Your task to perform on an android device: turn notification dots on Image 0: 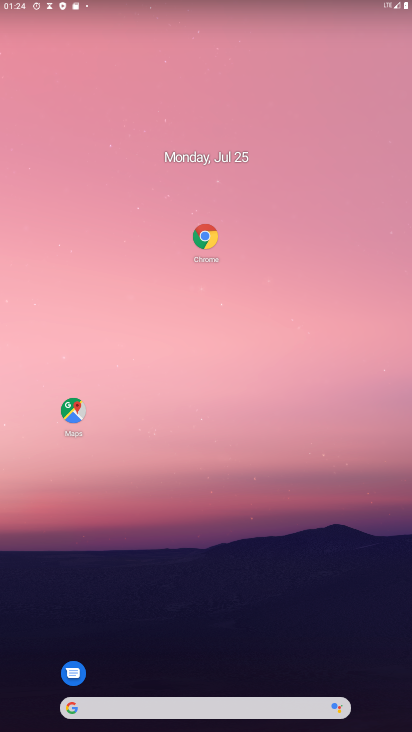
Step 0: drag from (222, 698) to (233, 9)
Your task to perform on an android device: turn notification dots on Image 1: 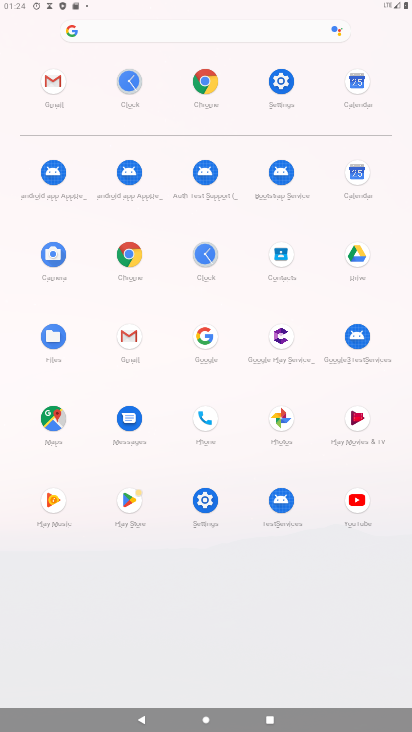
Step 1: click (278, 77)
Your task to perform on an android device: turn notification dots on Image 2: 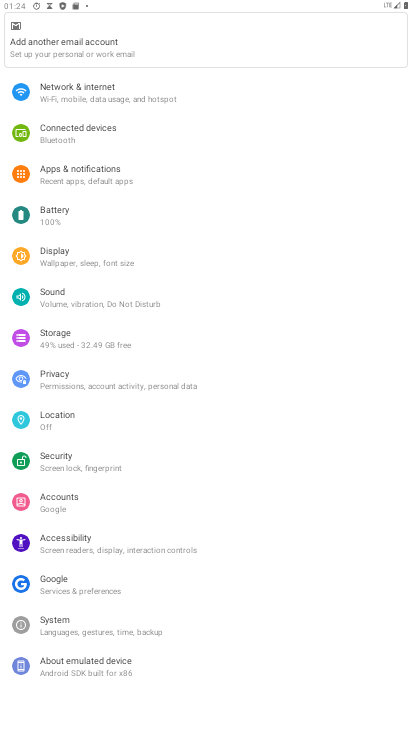
Step 2: click (120, 177)
Your task to perform on an android device: turn notification dots on Image 3: 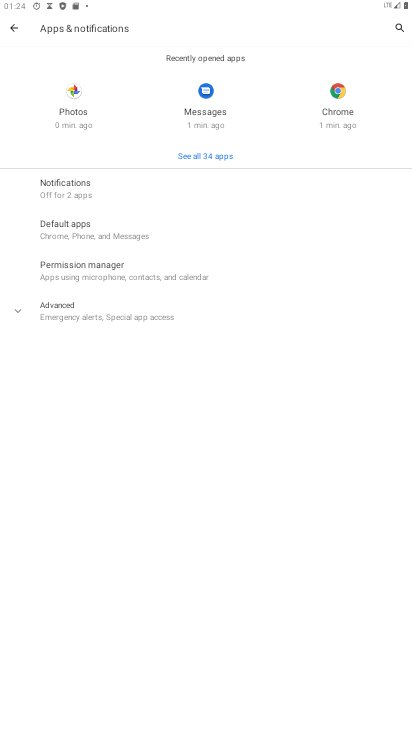
Step 3: click (88, 186)
Your task to perform on an android device: turn notification dots on Image 4: 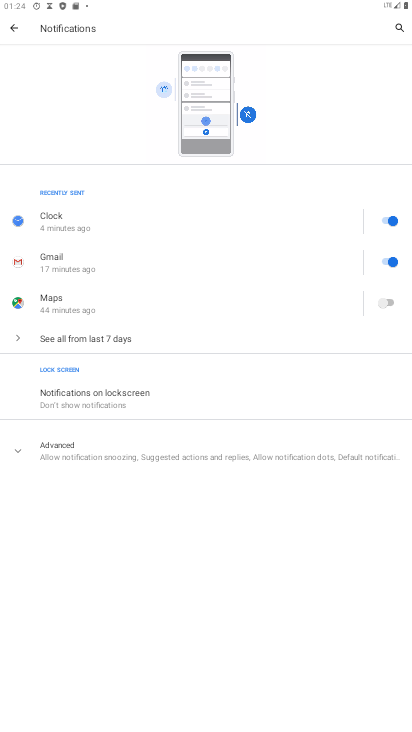
Step 4: click (84, 448)
Your task to perform on an android device: turn notification dots on Image 5: 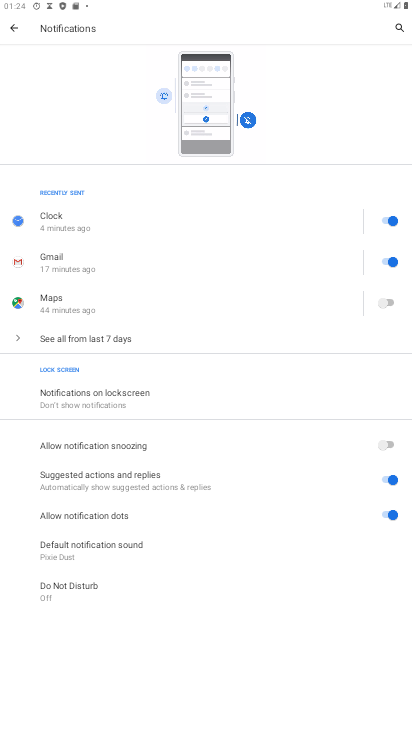
Step 5: task complete